Your task to perform on an android device: What's the weather? Image 0: 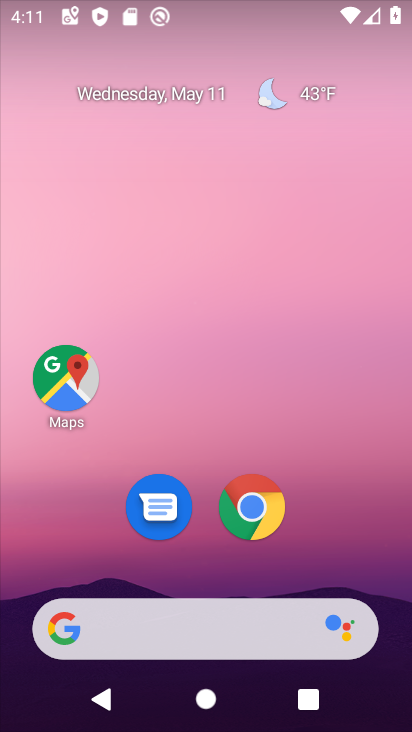
Step 0: drag from (224, 589) to (263, 120)
Your task to perform on an android device: What's the weather? Image 1: 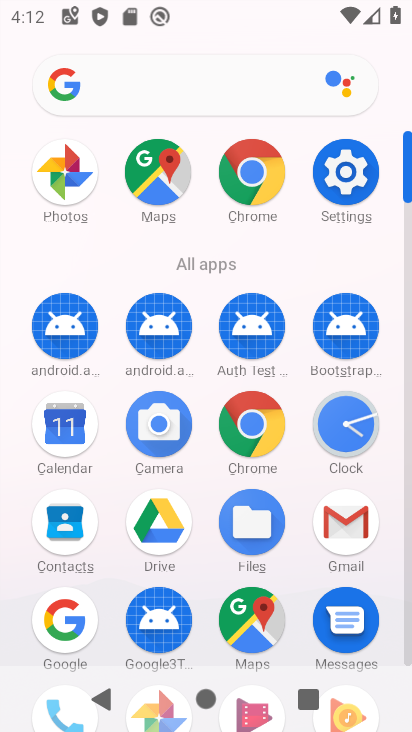
Step 1: drag from (208, 467) to (222, 279)
Your task to perform on an android device: What's the weather? Image 2: 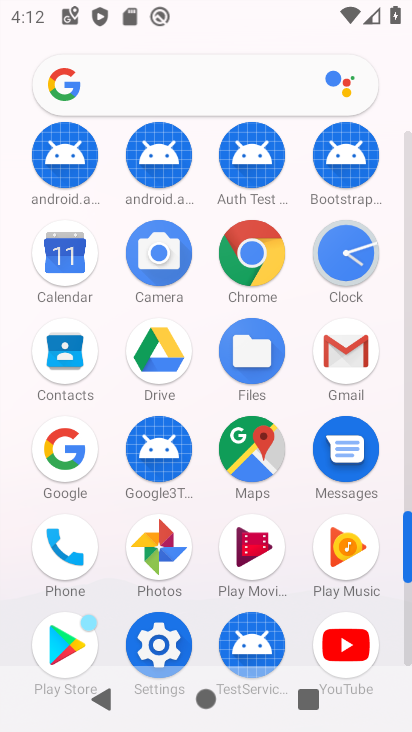
Step 2: click (78, 464)
Your task to perform on an android device: What's the weather? Image 3: 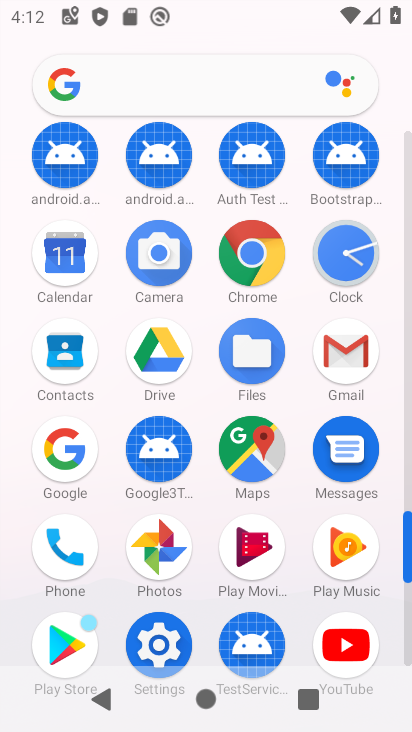
Step 3: click (78, 452)
Your task to perform on an android device: What's the weather? Image 4: 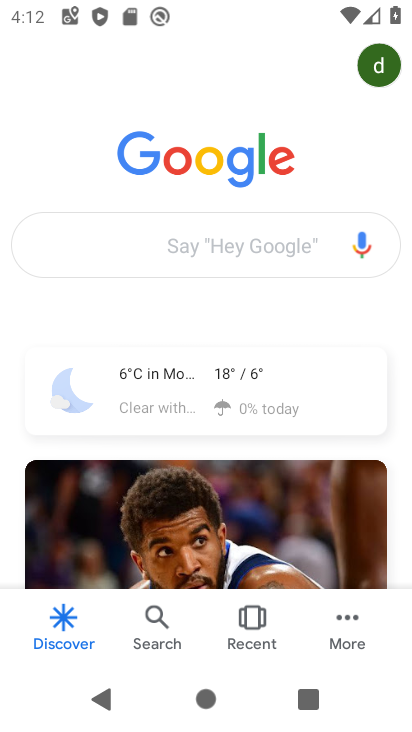
Step 4: click (186, 260)
Your task to perform on an android device: What's the weather? Image 5: 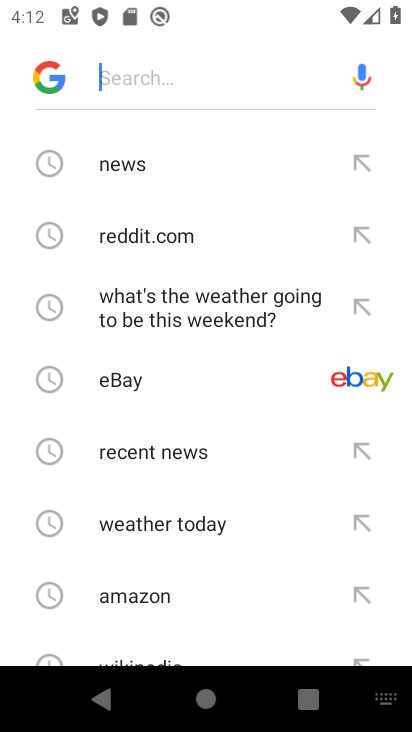
Step 5: click (196, 521)
Your task to perform on an android device: What's the weather? Image 6: 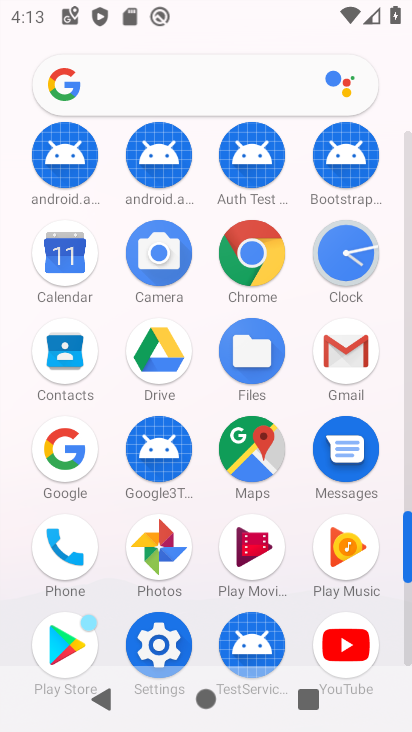
Step 6: drag from (206, 396) to (232, 181)
Your task to perform on an android device: What's the weather? Image 7: 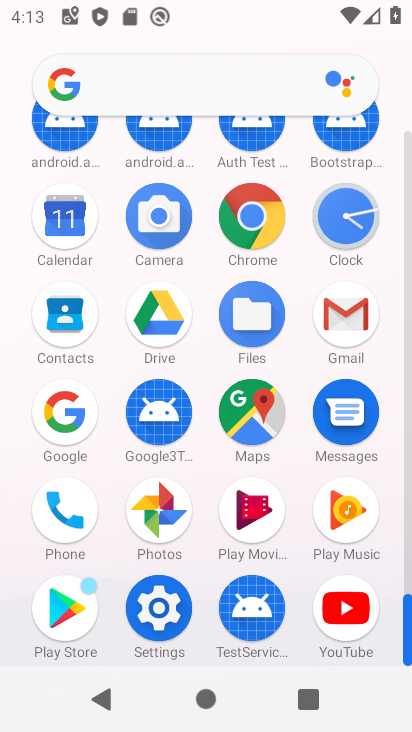
Step 7: click (66, 405)
Your task to perform on an android device: What's the weather? Image 8: 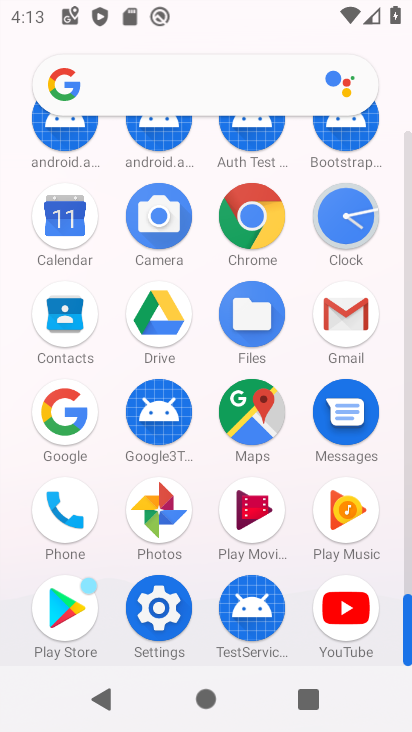
Step 8: click (78, 423)
Your task to perform on an android device: What's the weather? Image 9: 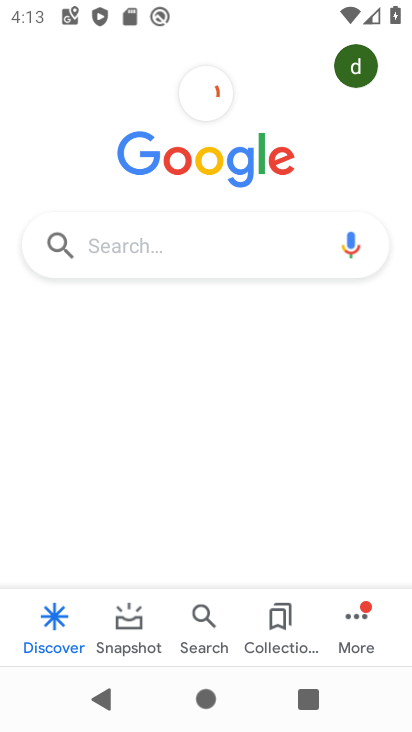
Step 9: click (201, 246)
Your task to perform on an android device: What's the weather? Image 10: 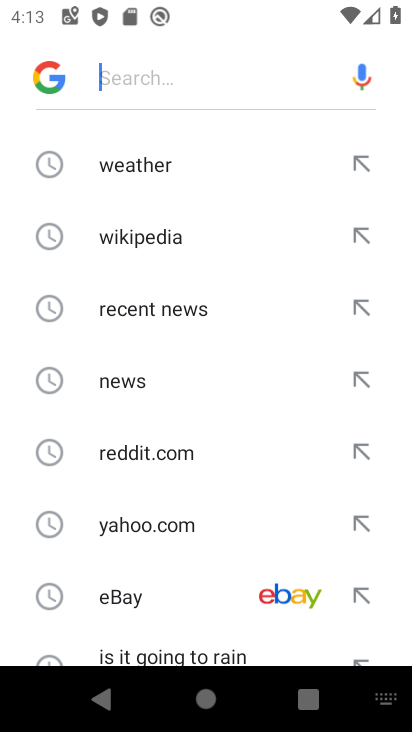
Step 10: click (219, 152)
Your task to perform on an android device: What's the weather? Image 11: 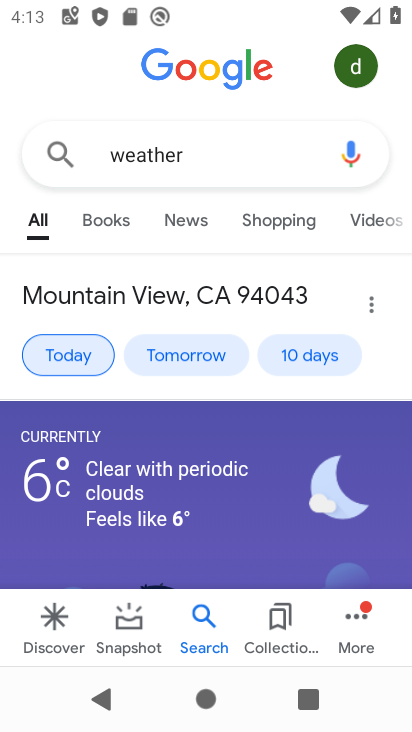
Step 11: task complete